Your task to perform on an android device: open app "VLC for Android" (install if not already installed), go to login, and select forgot password Image 0: 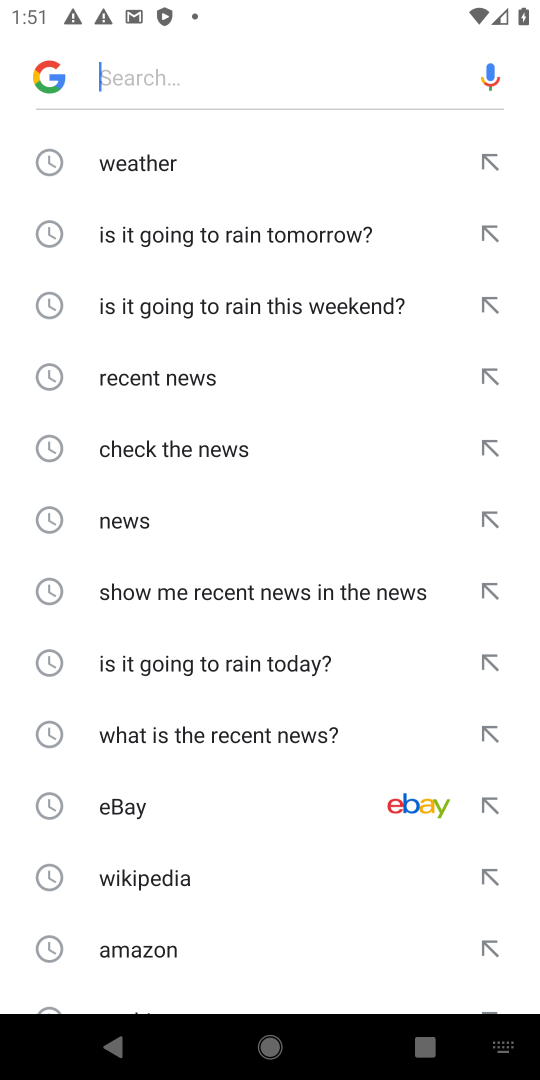
Step 0: press back button
Your task to perform on an android device: open app "VLC for Android" (install if not already installed), go to login, and select forgot password Image 1: 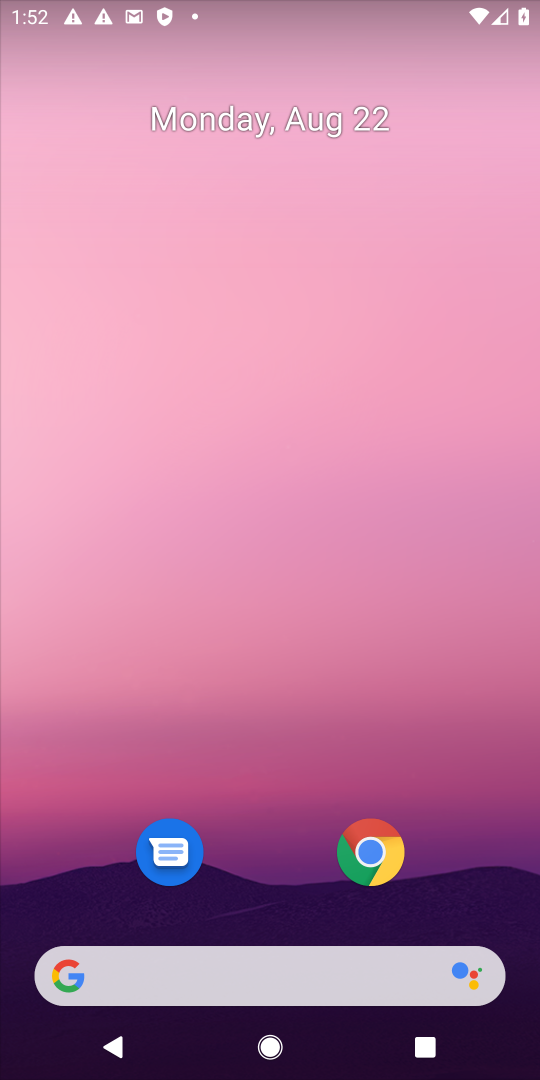
Step 1: drag from (278, 966) to (387, 205)
Your task to perform on an android device: open app "VLC for Android" (install if not already installed), go to login, and select forgot password Image 2: 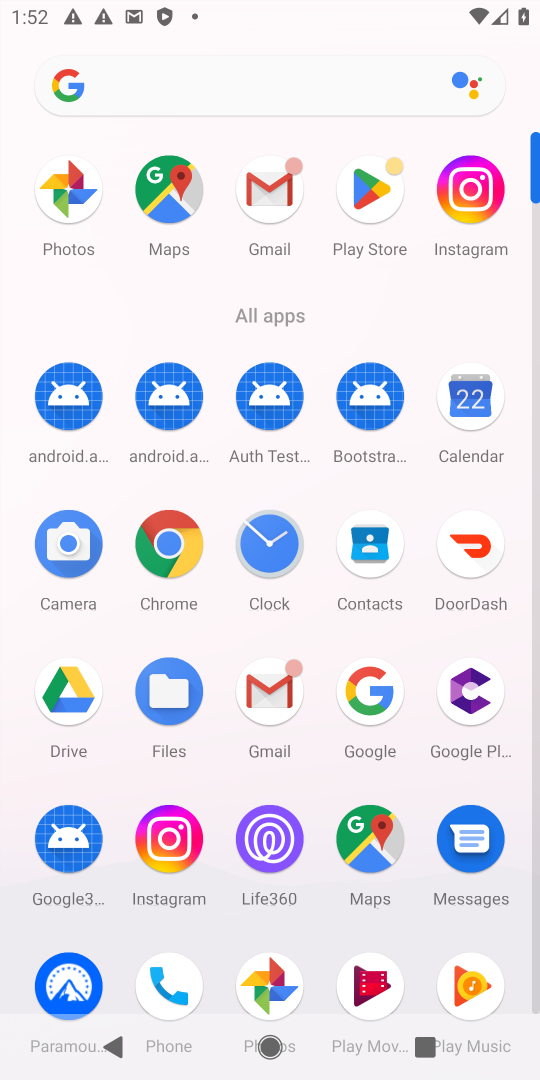
Step 2: click (361, 204)
Your task to perform on an android device: open app "VLC for Android" (install if not already installed), go to login, and select forgot password Image 3: 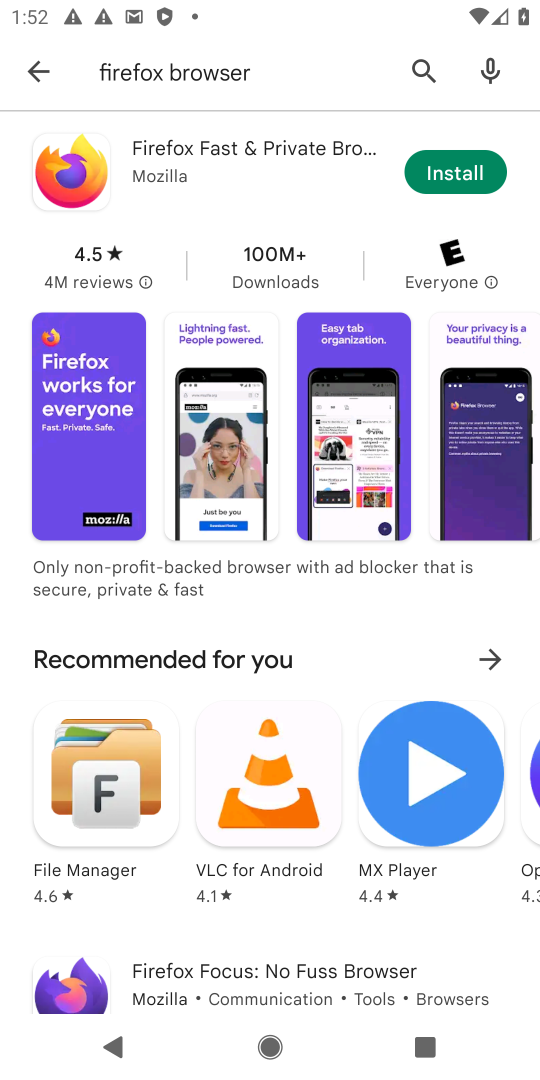
Step 3: click (415, 74)
Your task to perform on an android device: open app "VLC for Android" (install if not already installed), go to login, and select forgot password Image 4: 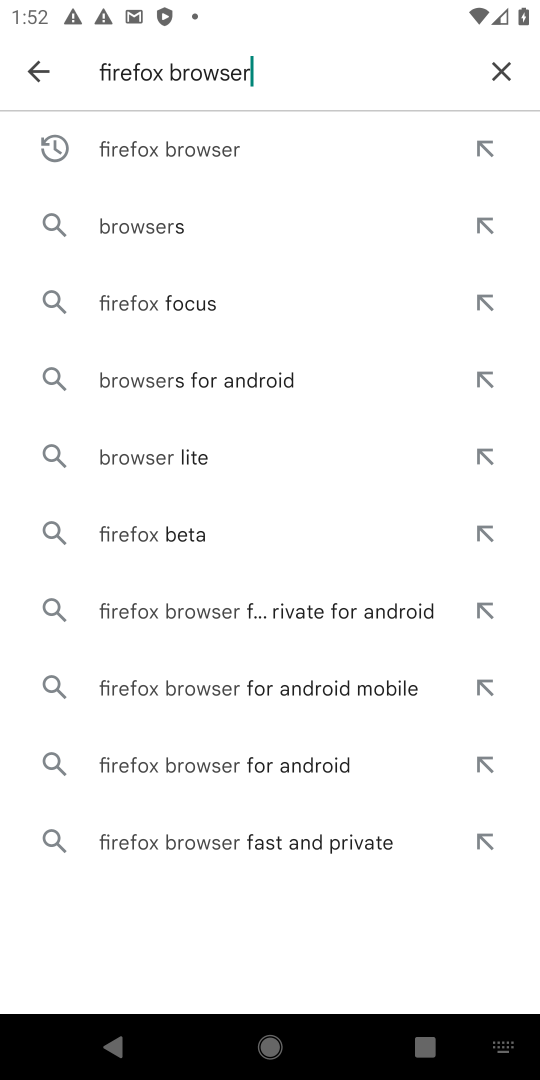
Step 4: click (496, 68)
Your task to perform on an android device: open app "VLC for Android" (install if not already installed), go to login, and select forgot password Image 5: 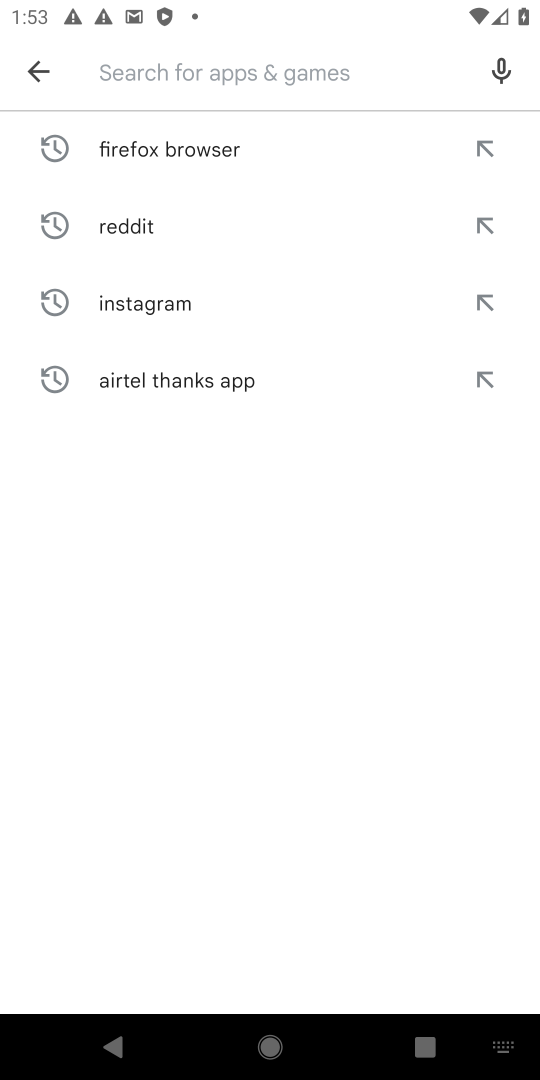
Step 5: type "vlc"
Your task to perform on an android device: open app "VLC for Android" (install if not already installed), go to login, and select forgot password Image 6: 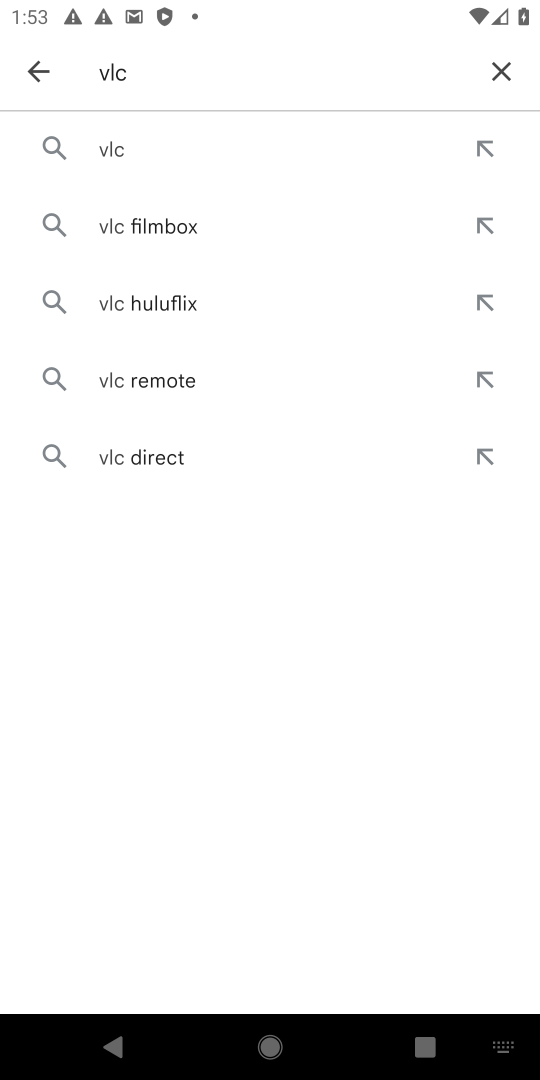
Step 6: click (127, 156)
Your task to perform on an android device: open app "VLC for Android" (install if not already installed), go to login, and select forgot password Image 7: 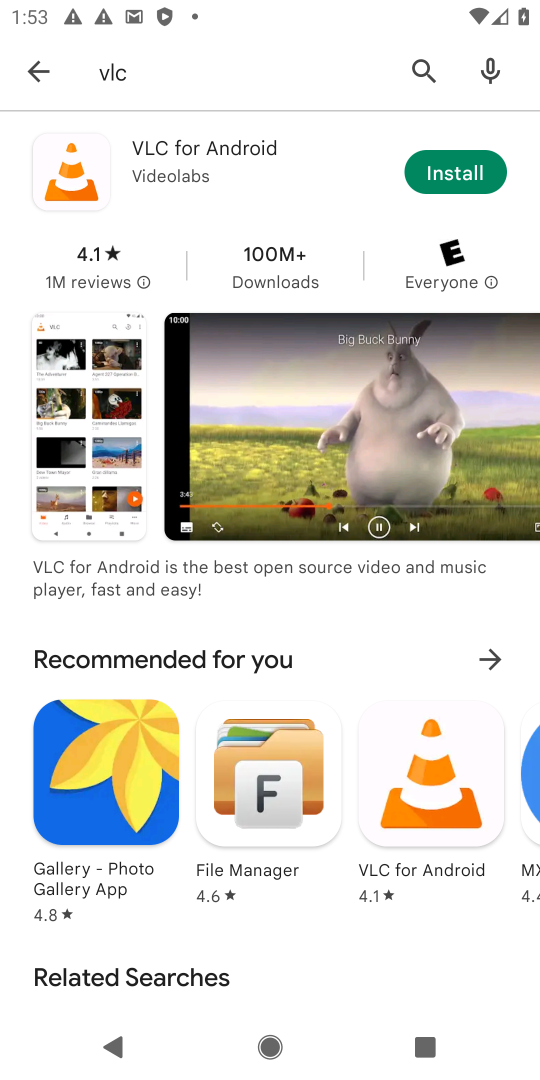
Step 7: click (465, 181)
Your task to perform on an android device: open app "VLC for Android" (install if not already installed), go to login, and select forgot password Image 8: 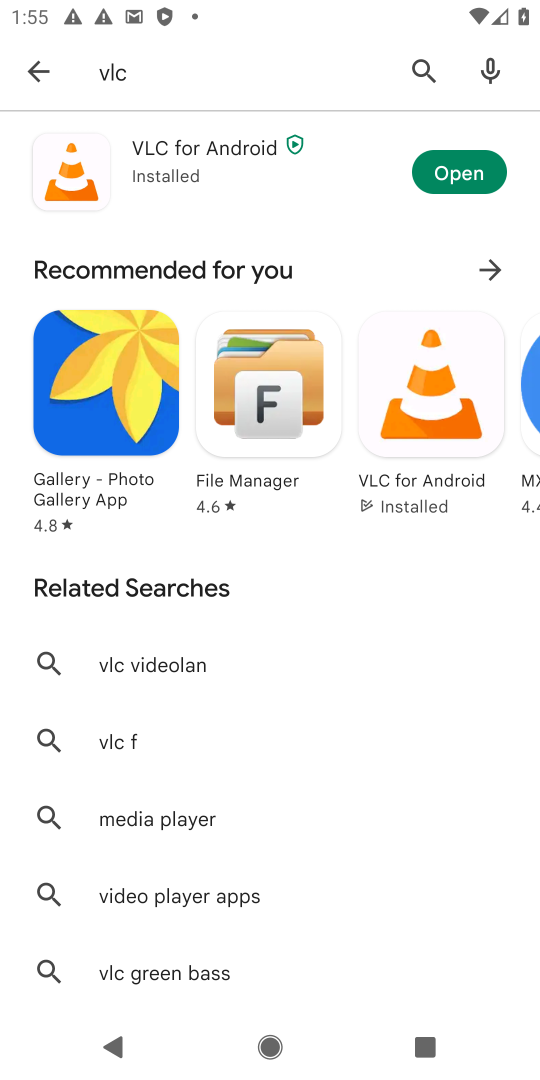
Step 8: click (473, 177)
Your task to perform on an android device: open app "VLC for Android" (install if not already installed), go to login, and select forgot password Image 9: 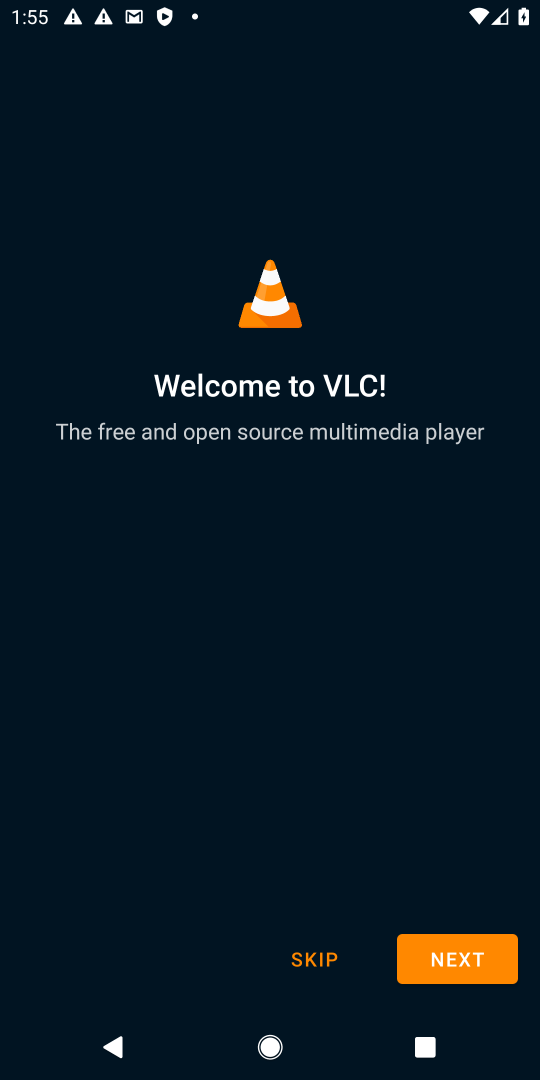
Step 9: click (448, 961)
Your task to perform on an android device: open app "VLC for Android" (install if not already installed), go to login, and select forgot password Image 10: 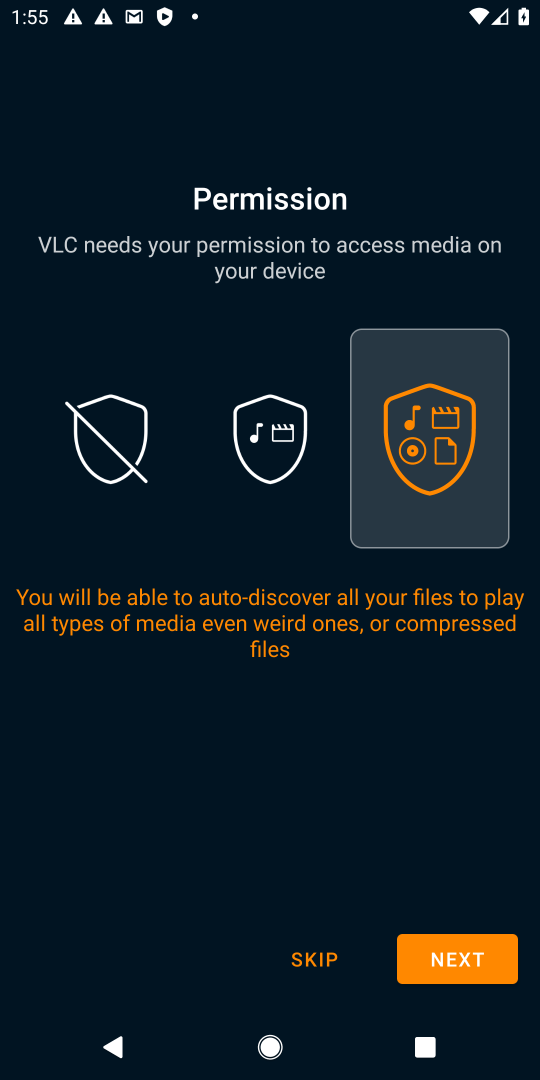
Step 10: click (448, 961)
Your task to perform on an android device: open app "VLC for Android" (install if not already installed), go to login, and select forgot password Image 11: 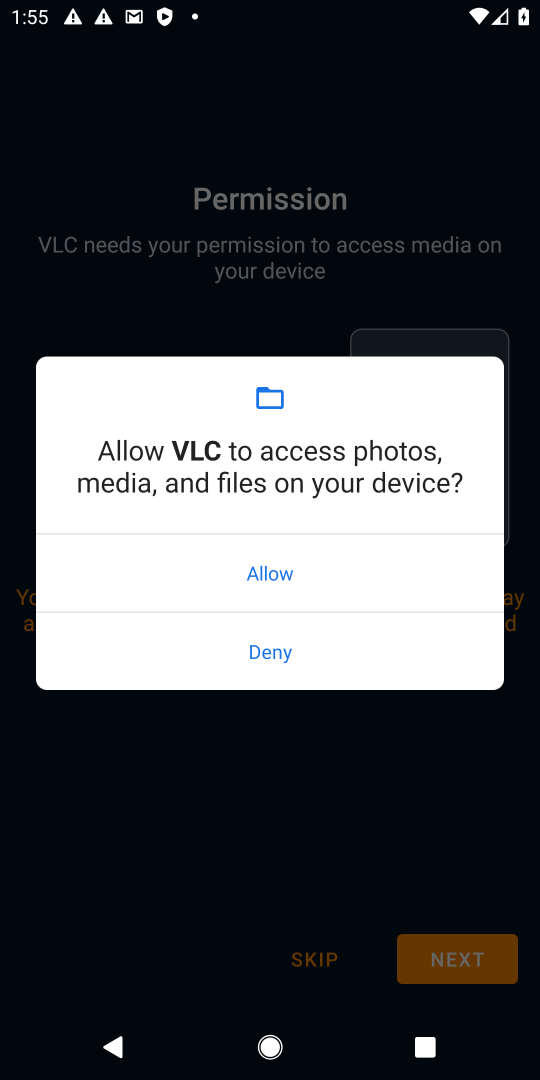
Step 11: click (268, 582)
Your task to perform on an android device: open app "VLC for Android" (install if not already installed), go to login, and select forgot password Image 12: 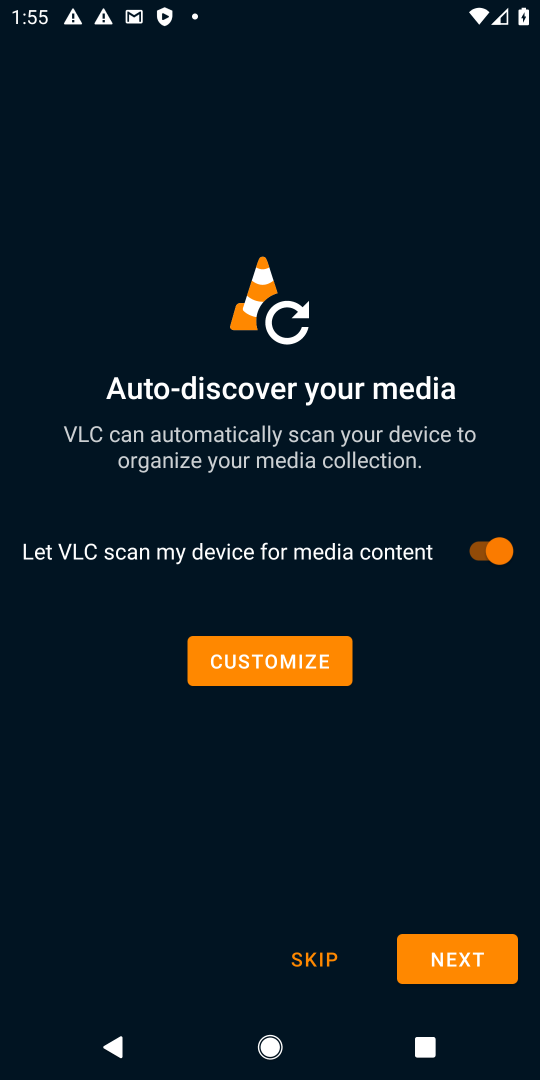
Step 12: drag from (328, 964) to (413, 960)
Your task to perform on an android device: open app "VLC for Android" (install if not already installed), go to login, and select forgot password Image 13: 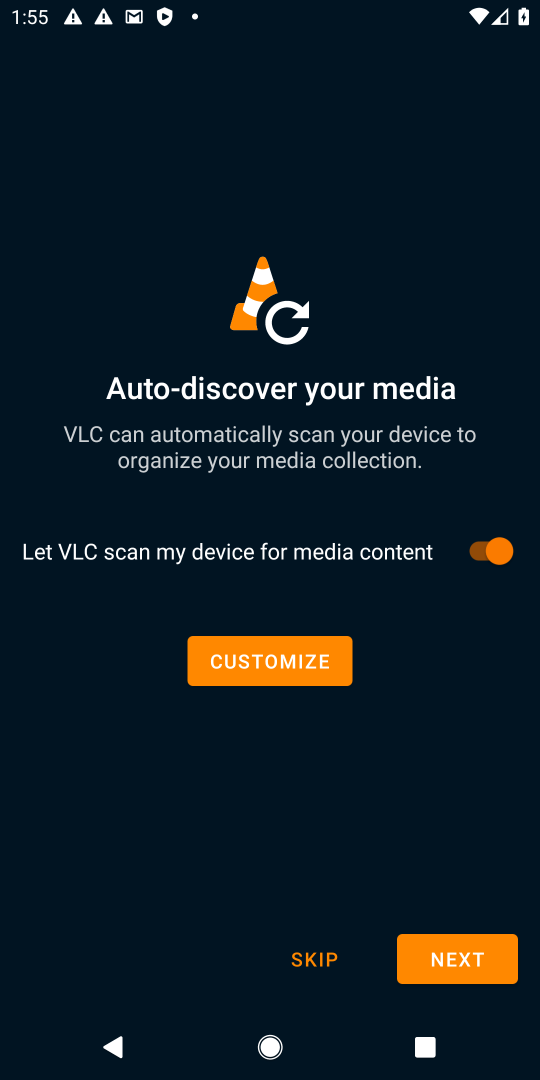
Step 13: click (413, 960)
Your task to perform on an android device: open app "VLC for Android" (install if not already installed), go to login, and select forgot password Image 14: 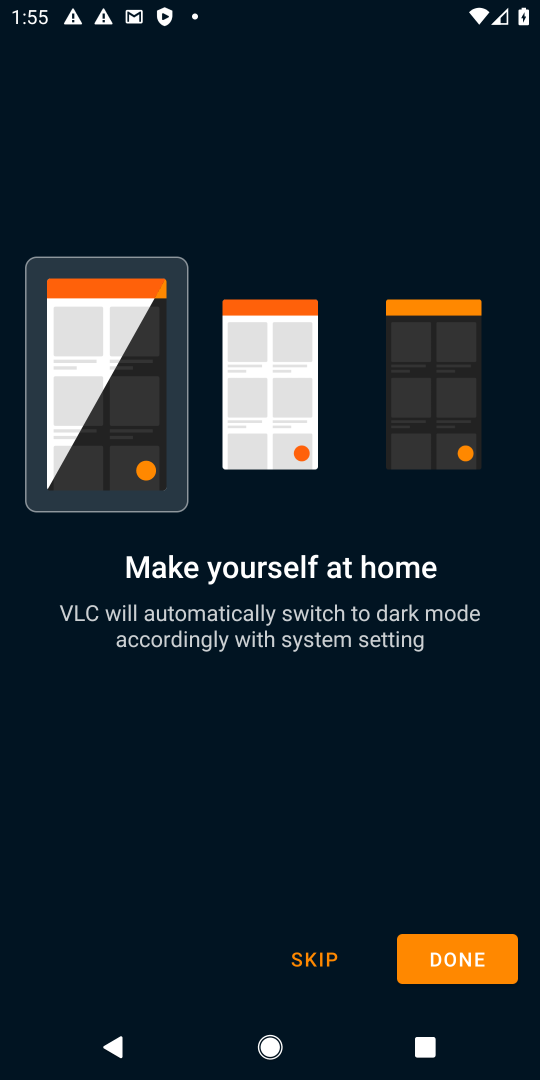
Step 14: click (463, 962)
Your task to perform on an android device: open app "VLC for Android" (install if not already installed), go to login, and select forgot password Image 15: 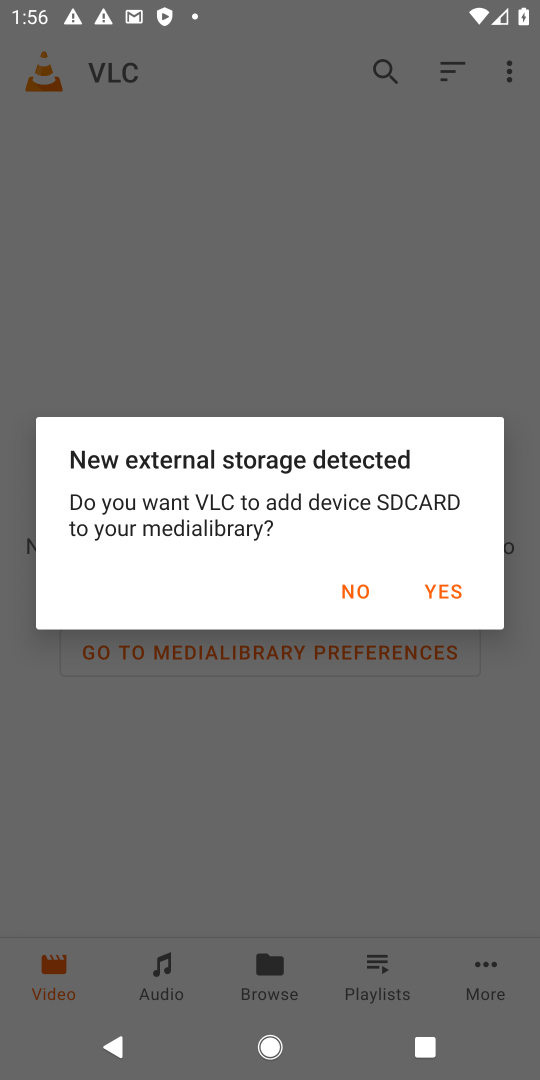
Step 15: task complete